Your task to perform on an android device: toggle notifications settings in the gmail app Image 0: 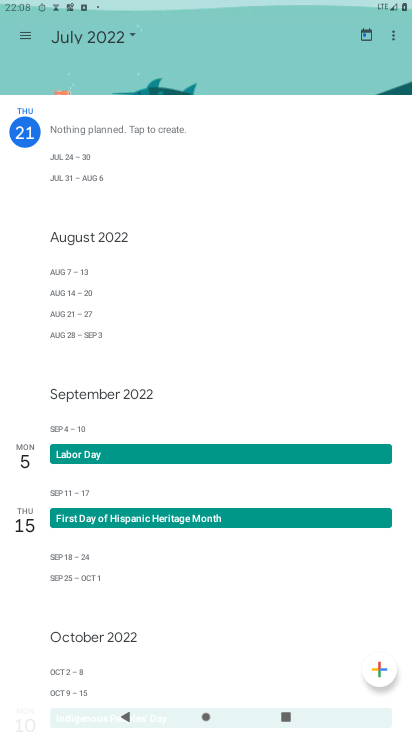
Step 0: press home button
Your task to perform on an android device: toggle notifications settings in the gmail app Image 1: 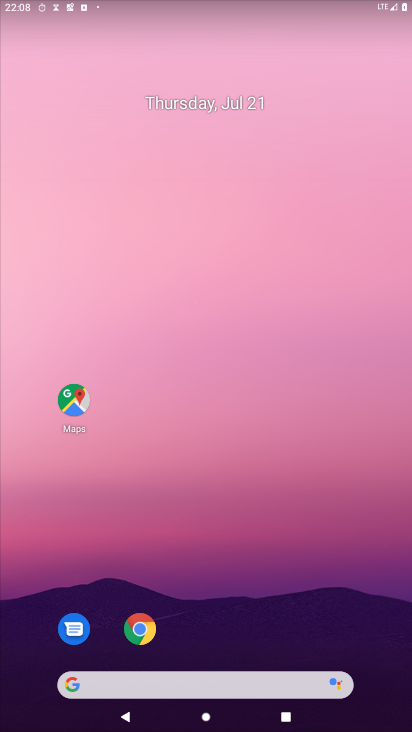
Step 1: drag from (260, 598) to (275, 83)
Your task to perform on an android device: toggle notifications settings in the gmail app Image 2: 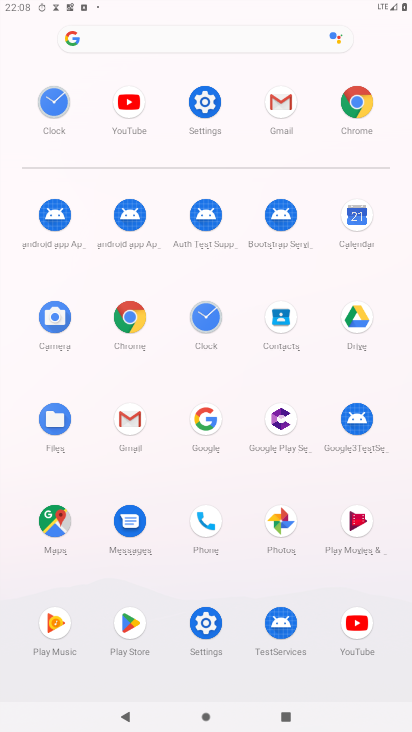
Step 2: click (129, 424)
Your task to perform on an android device: toggle notifications settings in the gmail app Image 3: 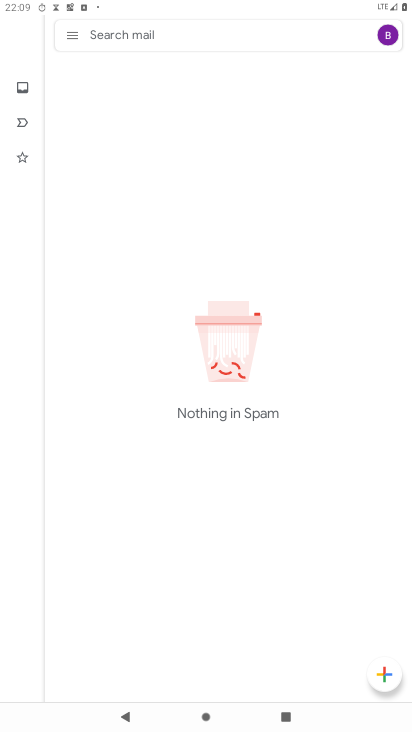
Step 3: click (69, 39)
Your task to perform on an android device: toggle notifications settings in the gmail app Image 4: 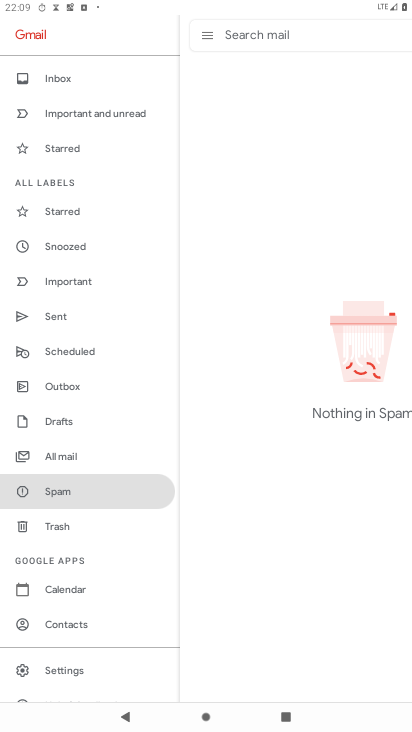
Step 4: click (82, 675)
Your task to perform on an android device: toggle notifications settings in the gmail app Image 5: 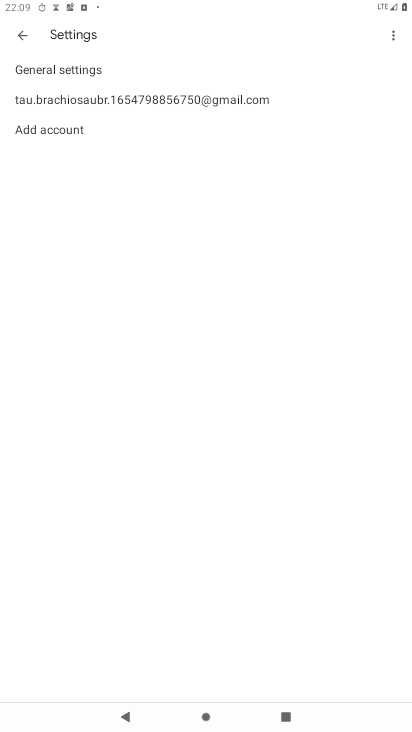
Step 5: click (166, 100)
Your task to perform on an android device: toggle notifications settings in the gmail app Image 6: 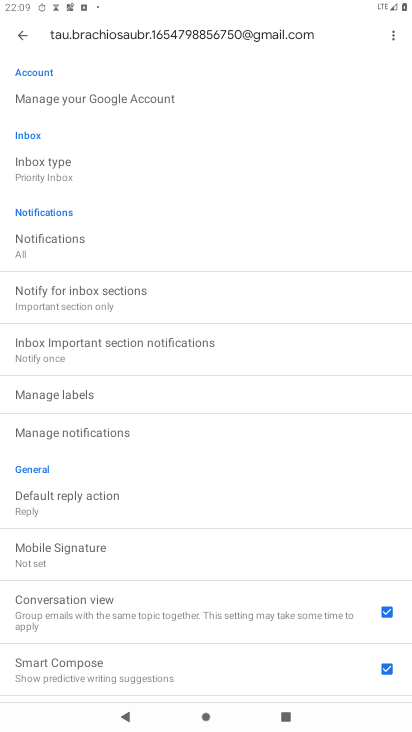
Step 6: click (132, 436)
Your task to perform on an android device: toggle notifications settings in the gmail app Image 7: 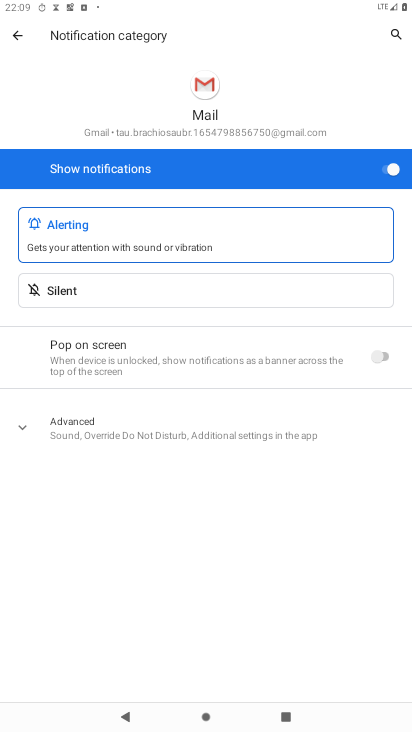
Step 7: click (394, 167)
Your task to perform on an android device: toggle notifications settings in the gmail app Image 8: 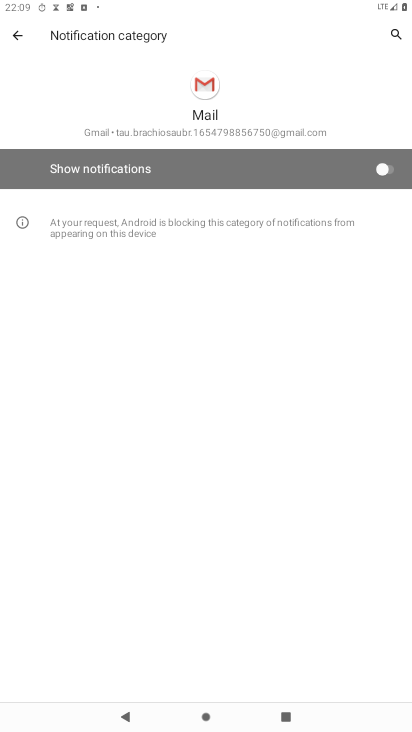
Step 8: task complete